Your task to perform on an android device: delete a single message in the gmail app Image 0: 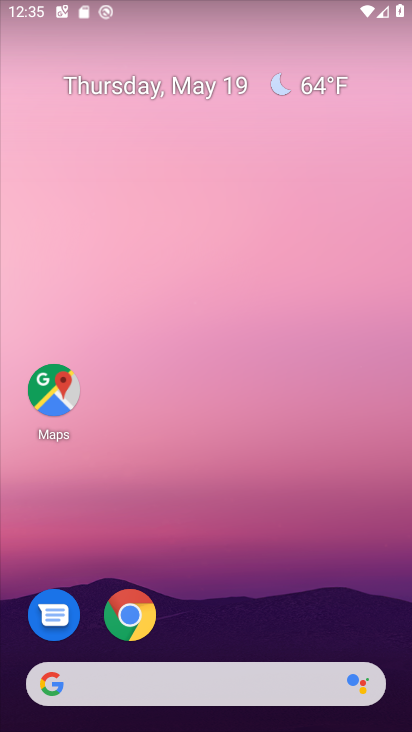
Step 0: drag from (186, 680) to (292, 110)
Your task to perform on an android device: delete a single message in the gmail app Image 1: 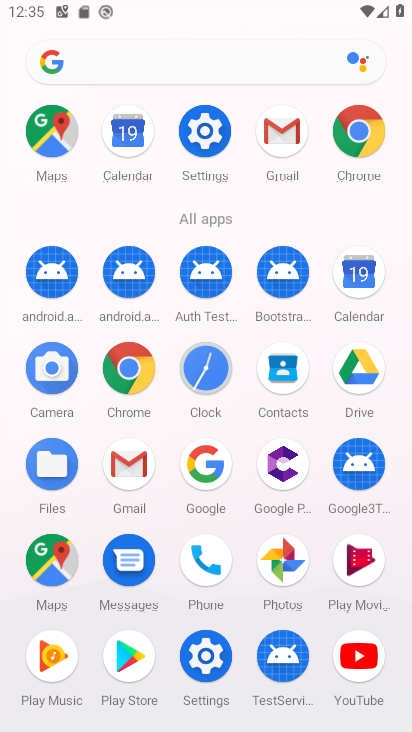
Step 1: click (128, 469)
Your task to perform on an android device: delete a single message in the gmail app Image 2: 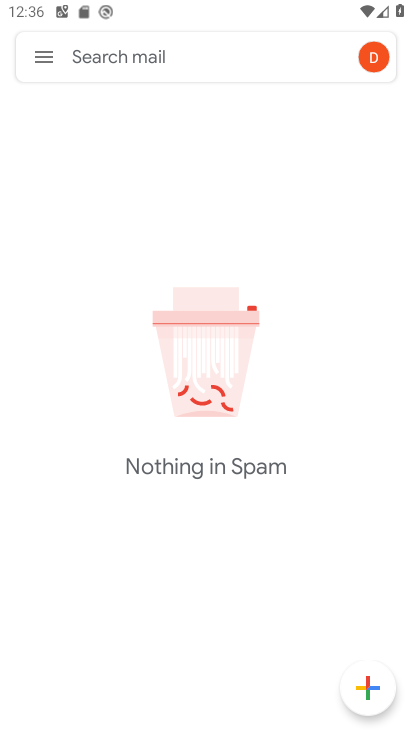
Step 2: task complete